Your task to perform on an android device: Go to ESPN.com Image 0: 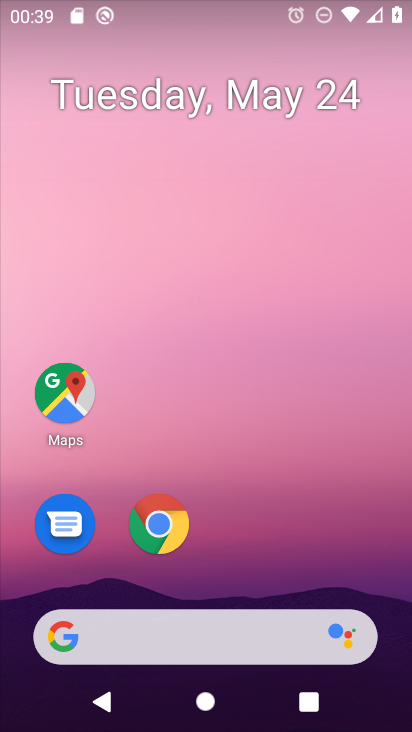
Step 0: click (155, 504)
Your task to perform on an android device: Go to ESPN.com Image 1: 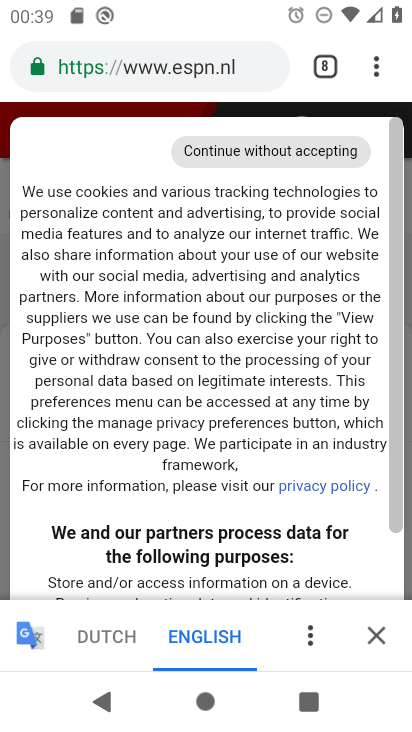
Step 1: click (325, 70)
Your task to perform on an android device: Go to ESPN.com Image 2: 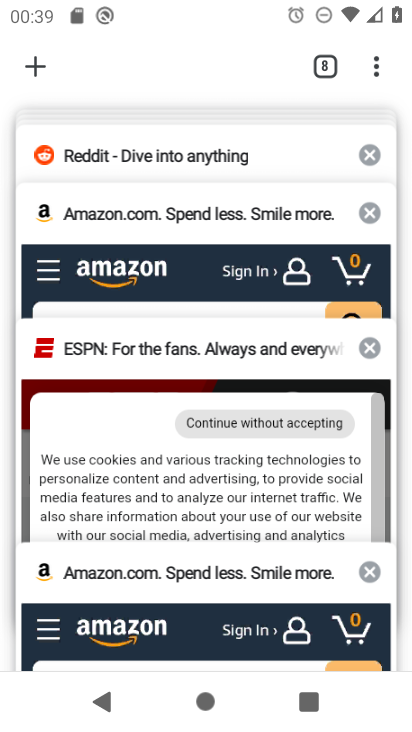
Step 2: click (166, 356)
Your task to perform on an android device: Go to ESPN.com Image 3: 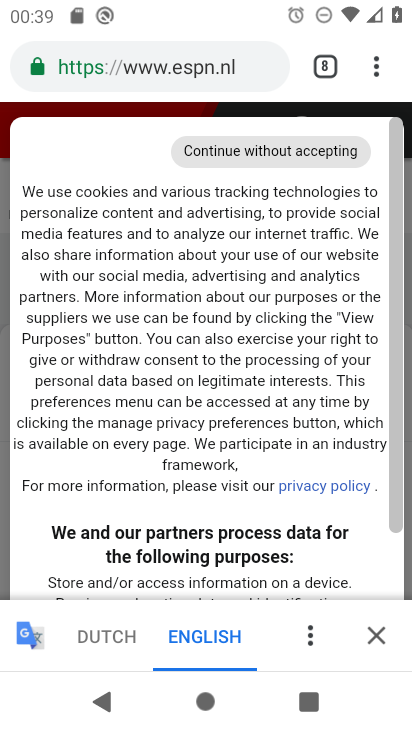
Step 3: task complete